Your task to perform on an android device: What's a good restaurant in Boston? Image 0: 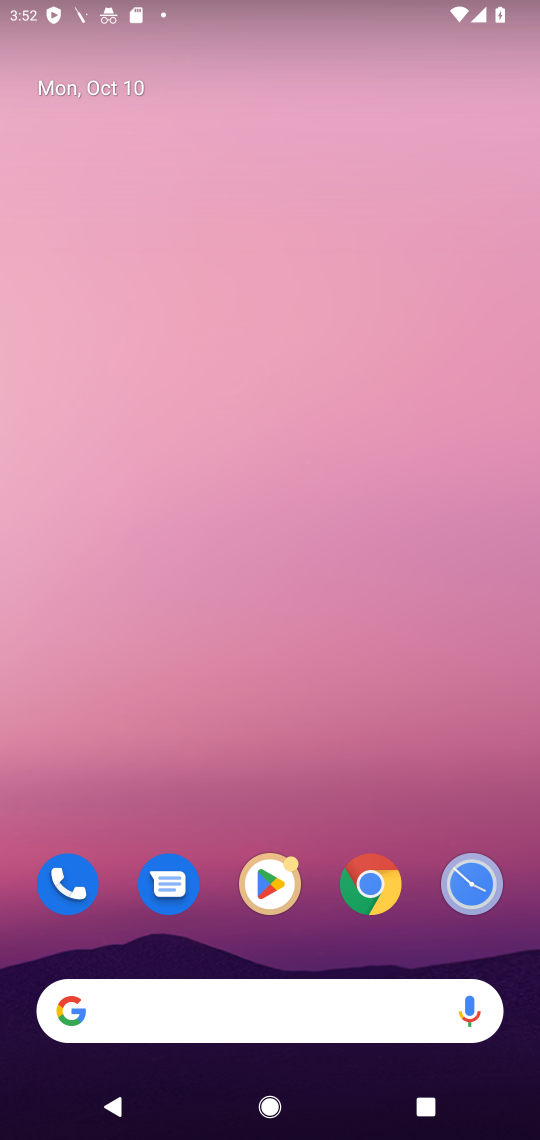
Step 0: click (261, 998)
Your task to perform on an android device: What's a good restaurant in Boston? Image 1: 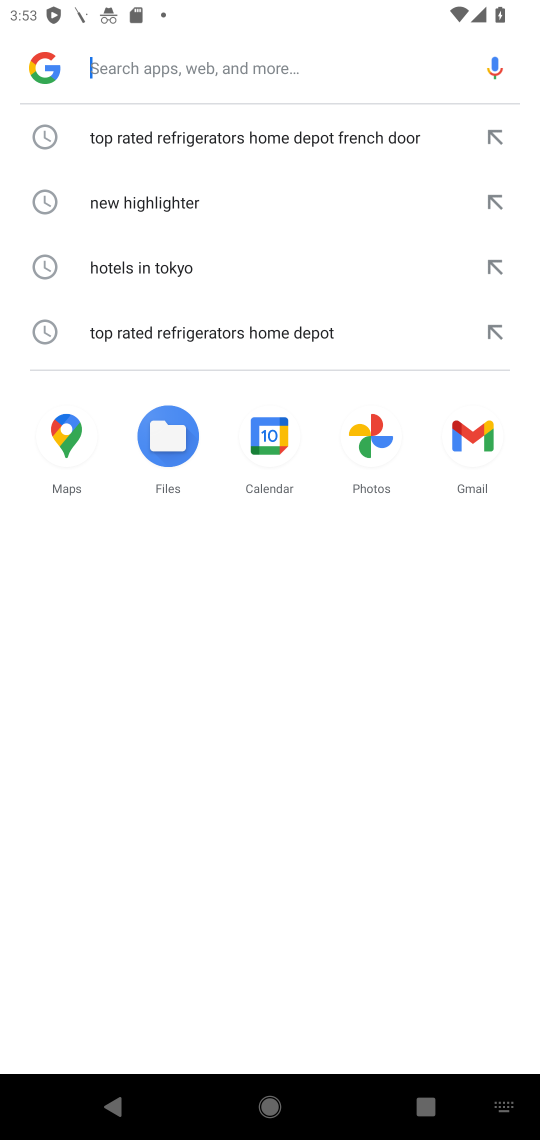
Step 1: type "good restaurant in Boston?"
Your task to perform on an android device: What's a good restaurant in Boston? Image 2: 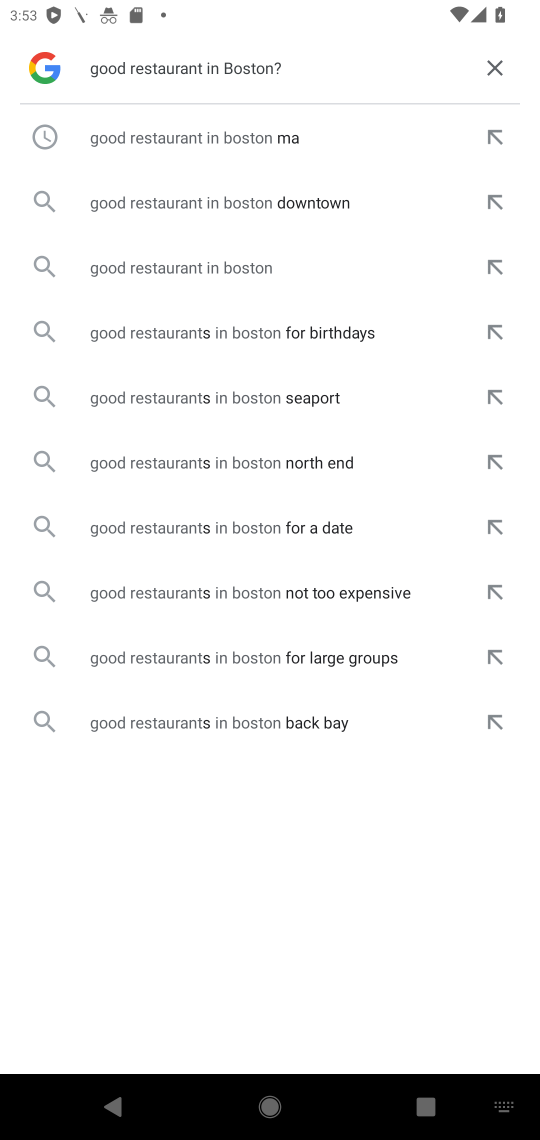
Step 2: click (205, 133)
Your task to perform on an android device: What's a good restaurant in Boston? Image 3: 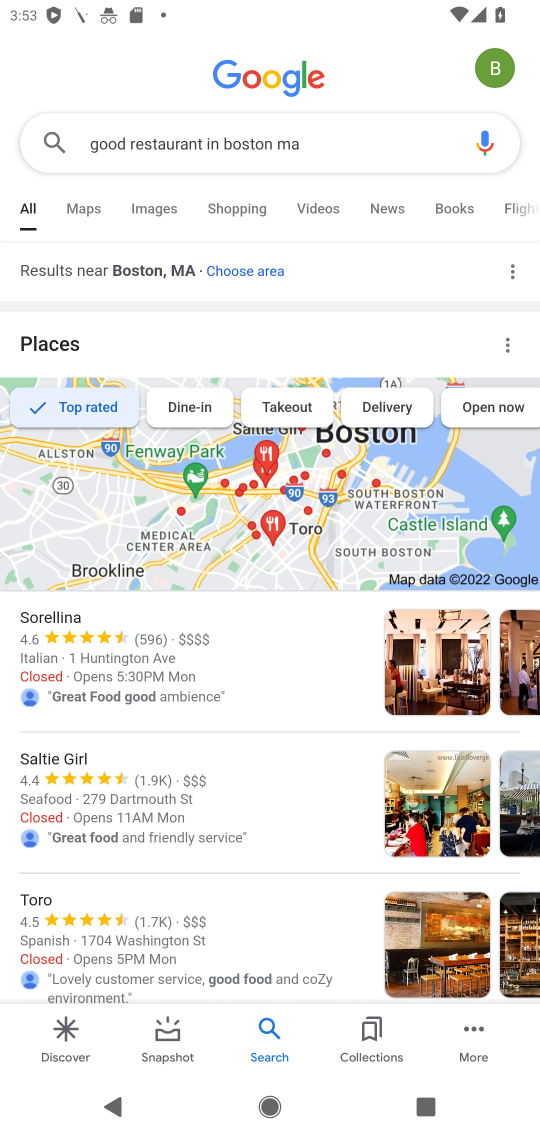
Step 3: task complete